Your task to perform on an android device: Do I have any events tomorrow? Image 0: 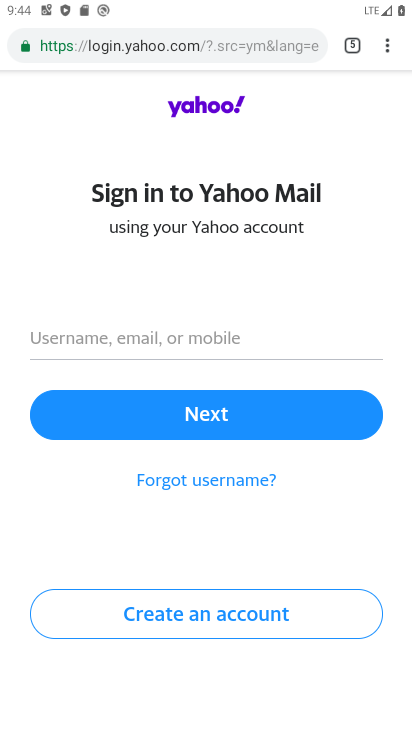
Step 0: press home button
Your task to perform on an android device: Do I have any events tomorrow? Image 1: 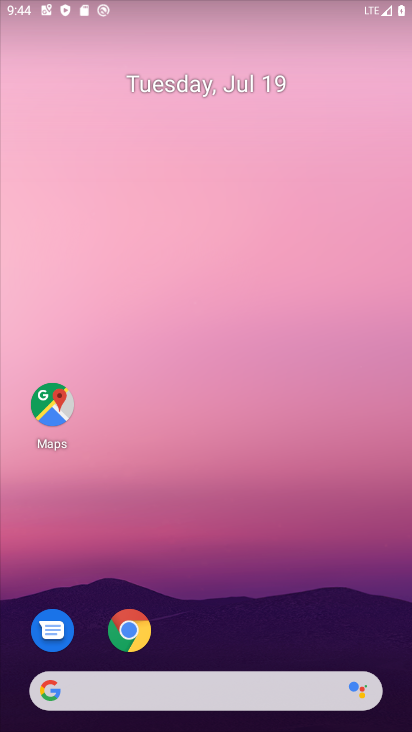
Step 1: drag from (202, 644) to (245, 113)
Your task to perform on an android device: Do I have any events tomorrow? Image 2: 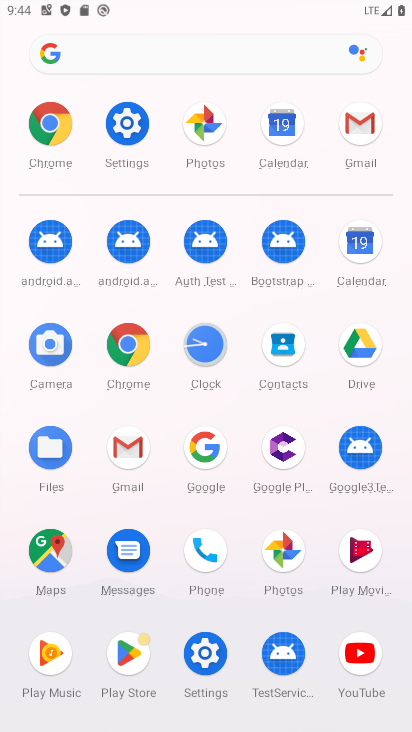
Step 2: click (359, 246)
Your task to perform on an android device: Do I have any events tomorrow? Image 3: 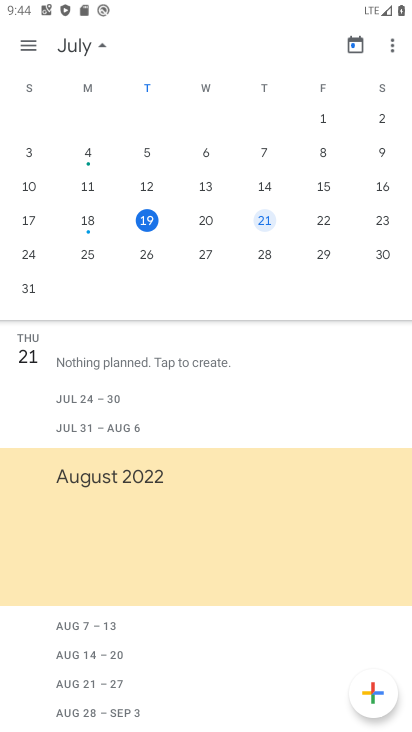
Step 3: click (209, 219)
Your task to perform on an android device: Do I have any events tomorrow? Image 4: 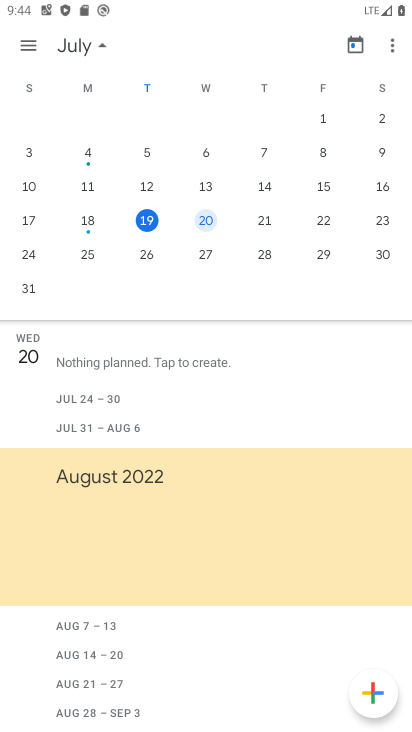
Step 4: task complete